Your task to perform on an android device: Open wifi settings Image 0: 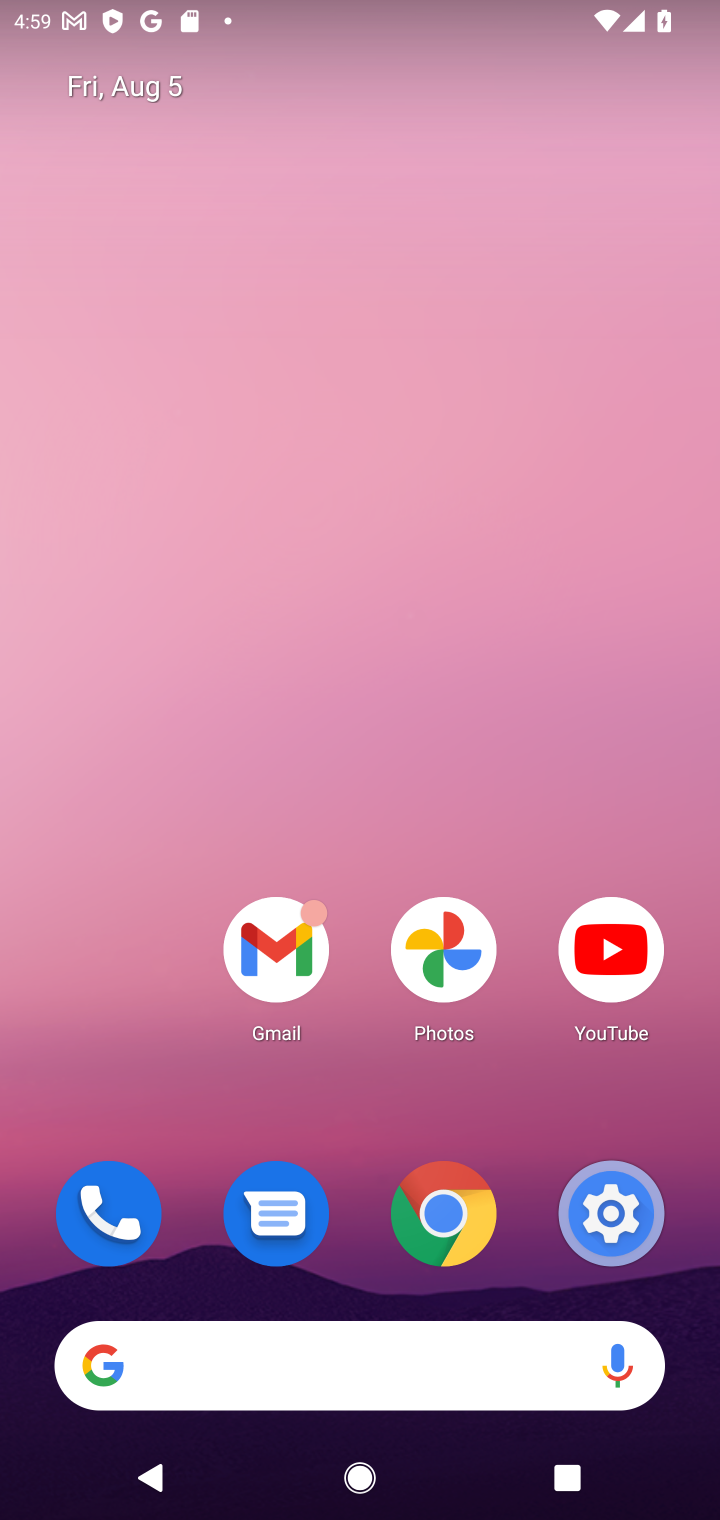
Step 0: click (645, 1258)
Your task to perform on an android device: Open wifi settings Image 1: 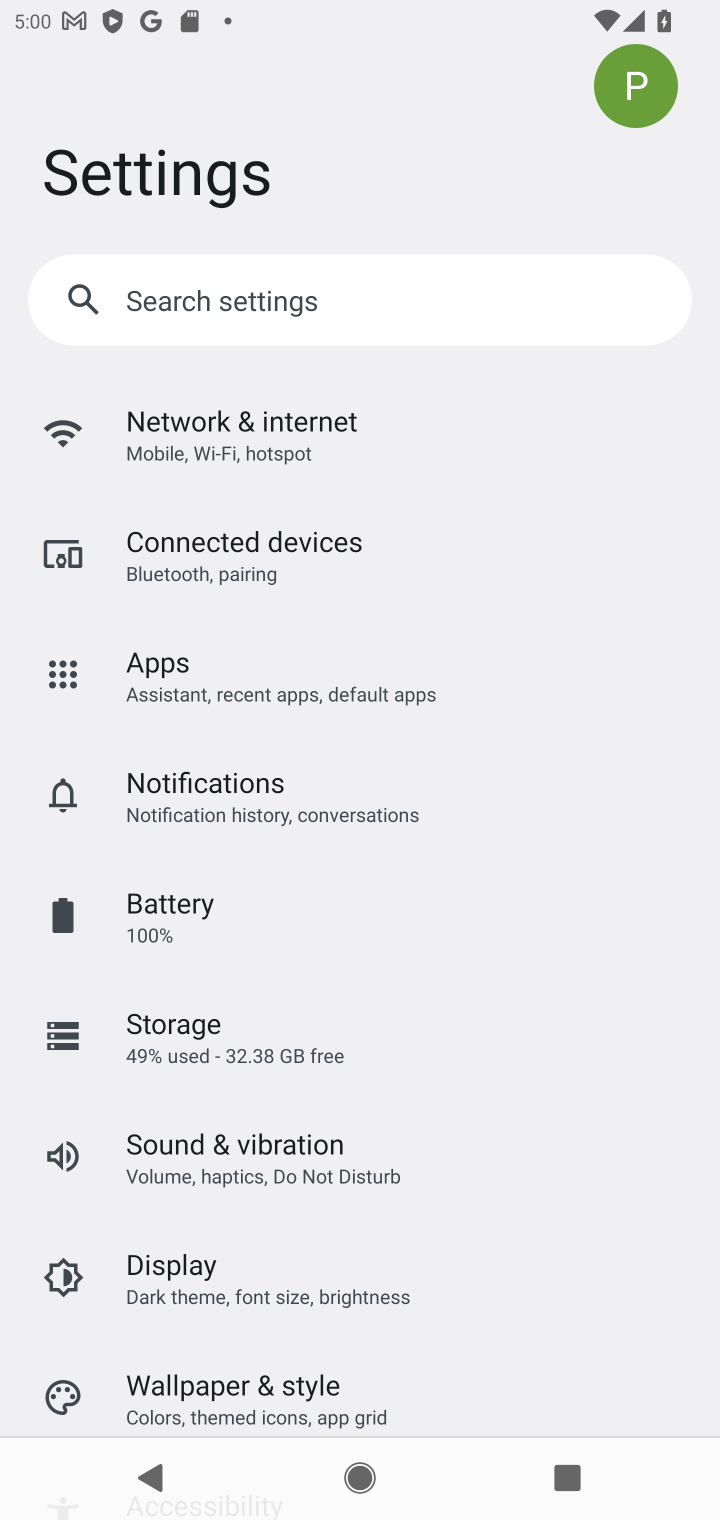
Step 1: click (158, 395)
Your task to perform on an android device: Open wifi settings Image 2: 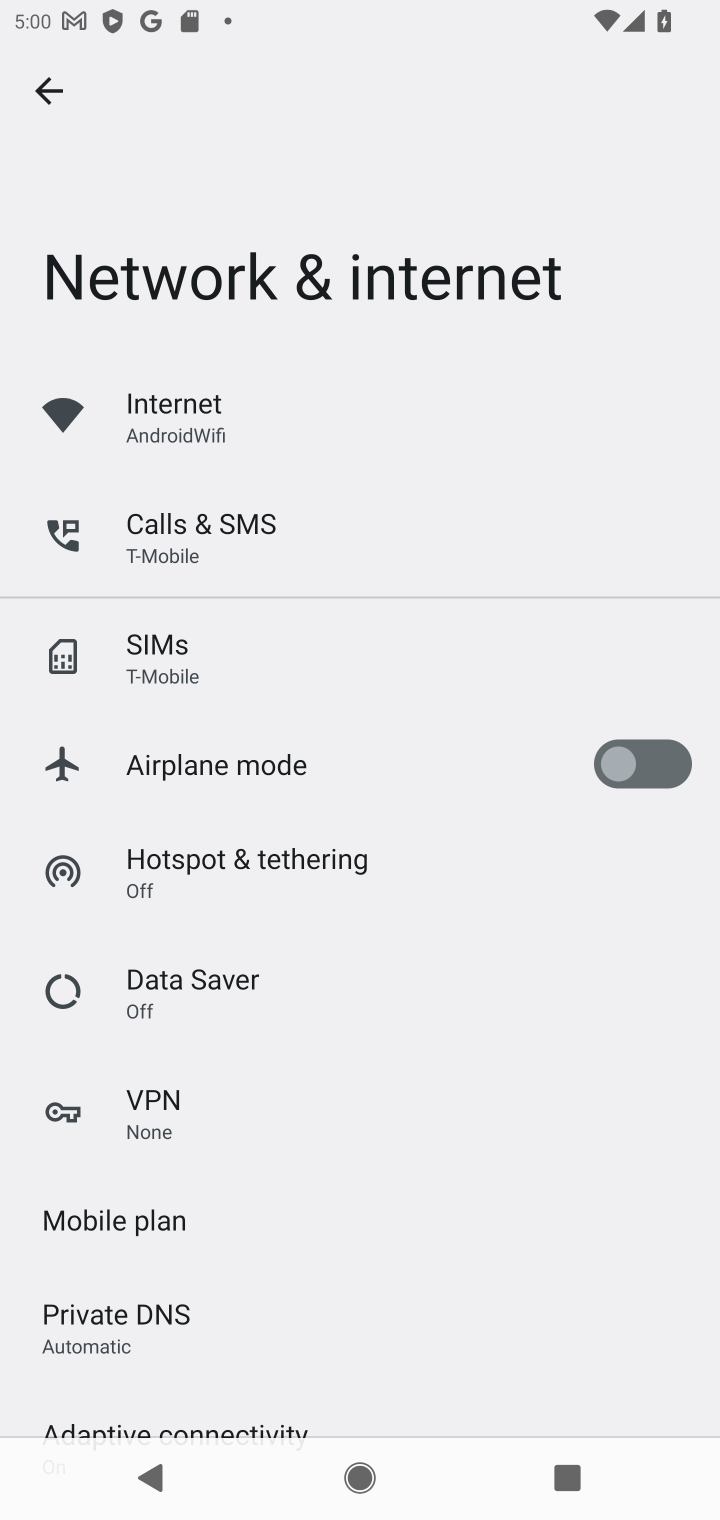
Step 2: click (269, 424)
Your task to perform on an android device: Open wifi settings Image 3: 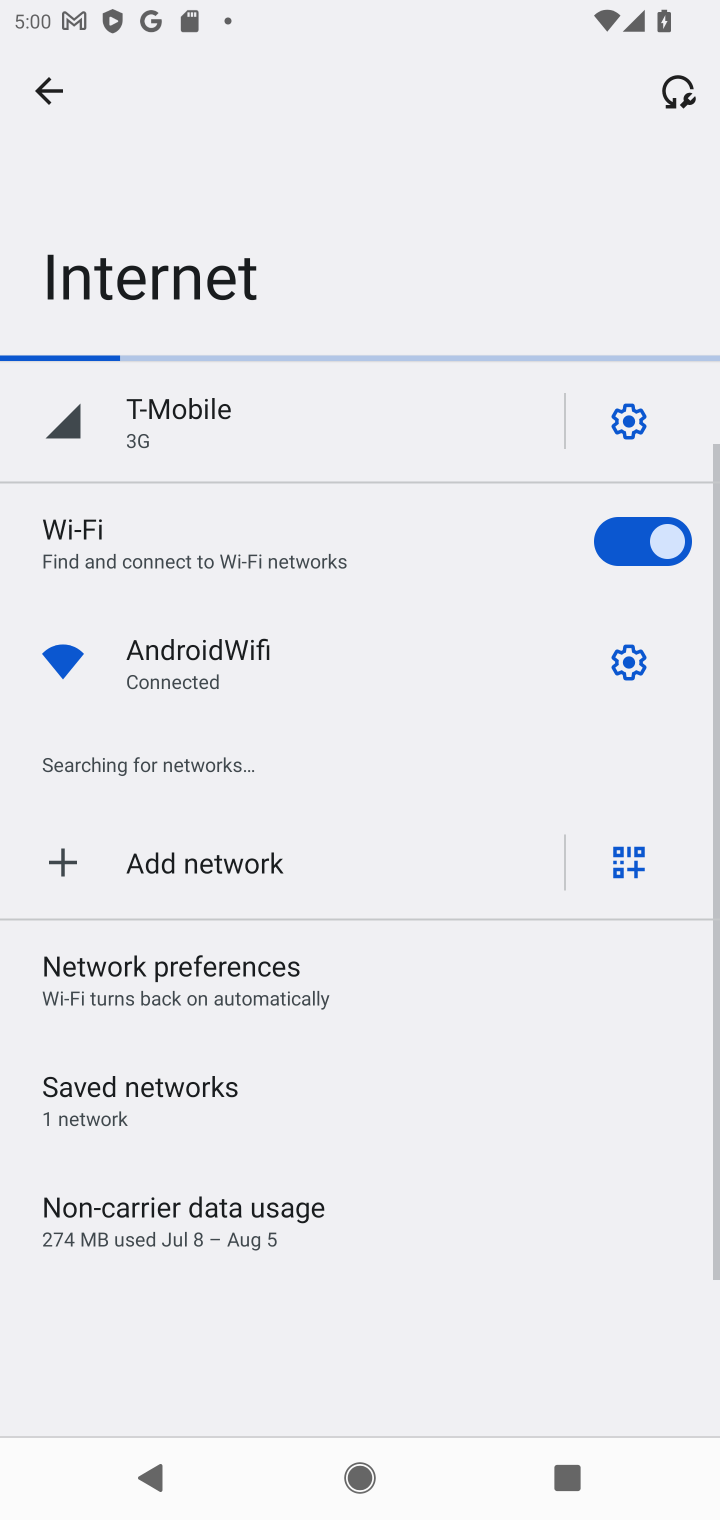
Step 3: task complete